Your task to perform on an android device: turn pop-ups on in chrome Image 0: 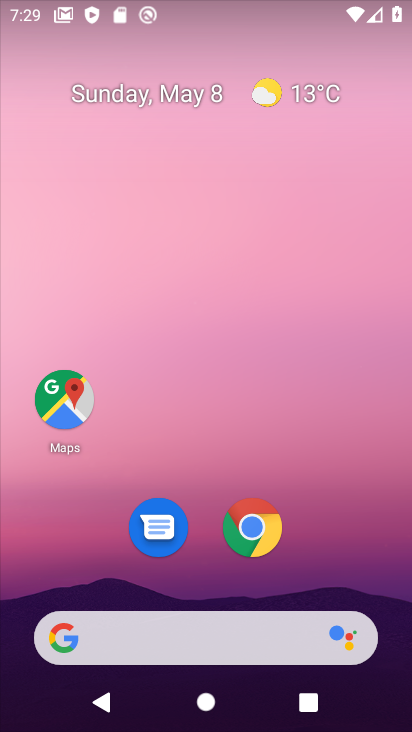
Step 0: drag from (310, 574) to (388, 1)
Your task to perform on an android device: turn pop-ups on in chrome Image 1: 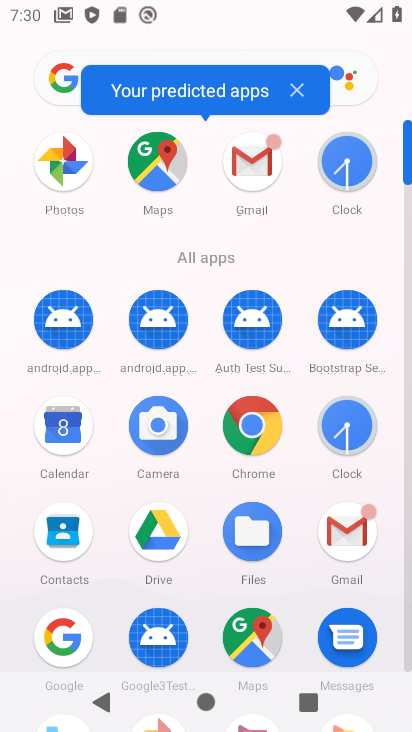
Step 1: click (271, 424)
Your task to perform on an android device: turn pop-ups on in chrome Image 2: 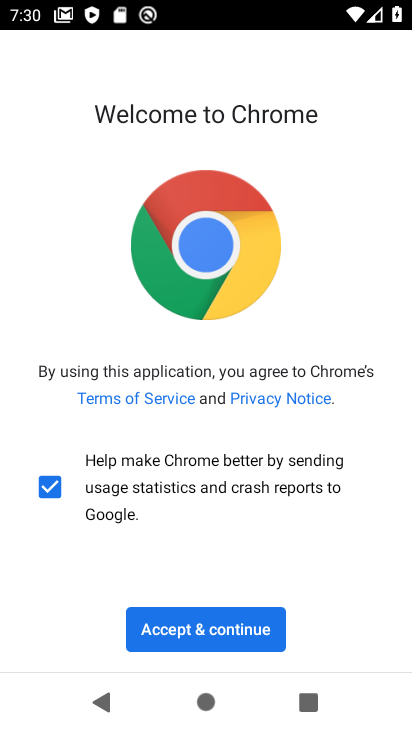
Step 2: click (272, 626)
Your task to perform on an android device: turn pop-ups on in chrome Image 3: 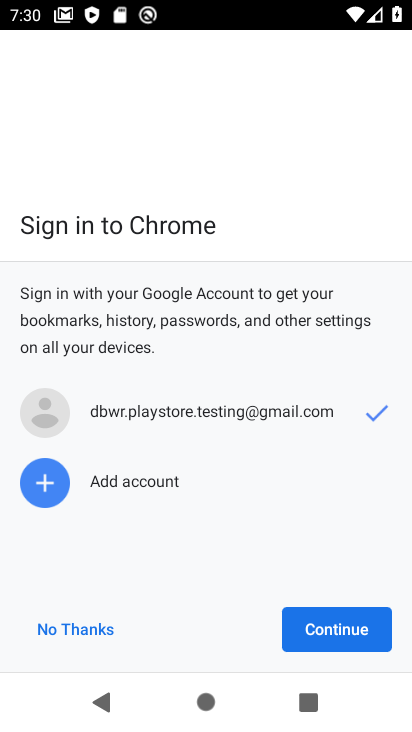
Step 3: click (86, 626)
Your task to perform on an android device: turn pop-ups on in chrome Image 4: 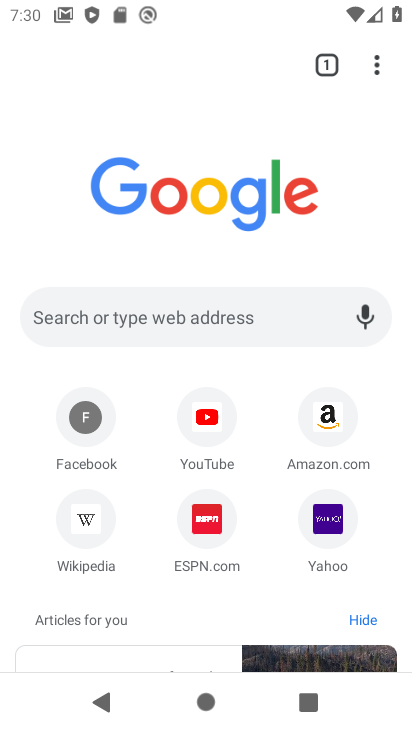
Step 4: drag from (375, 76) to (203, 531)
Your task to perform on an android device: turn pop-ups on in chrome Image 5: 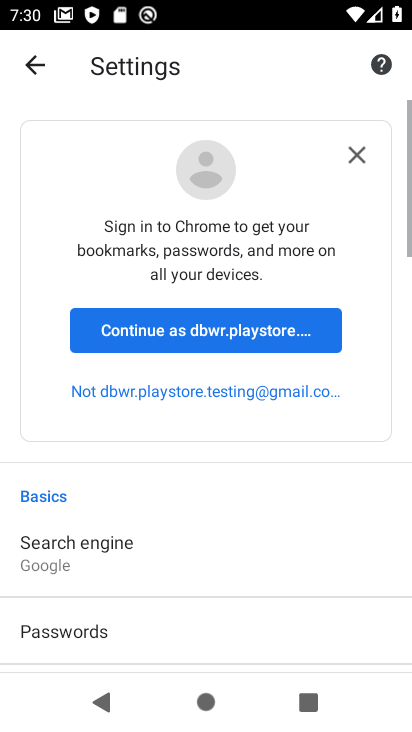
Step 5: drag from (203, 530) to (265, 173)
Your task to perform on an android device: turn pop-ups on in chrome Image 6: 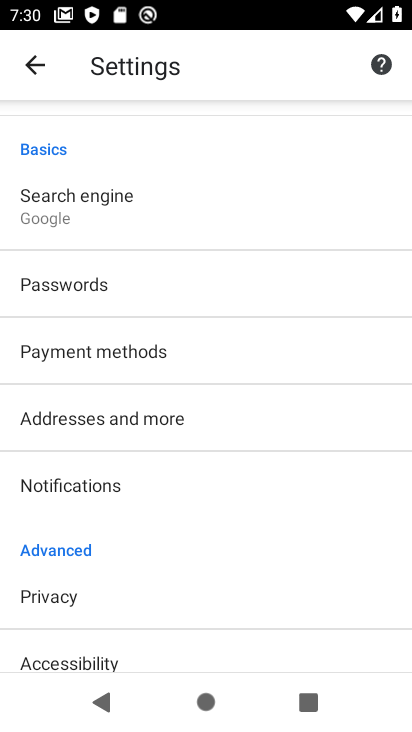
Step 6: drag from (210, 557) to (246, 121)
Your task to perform on an android device: turn pop-ups on in chrome Image 7: 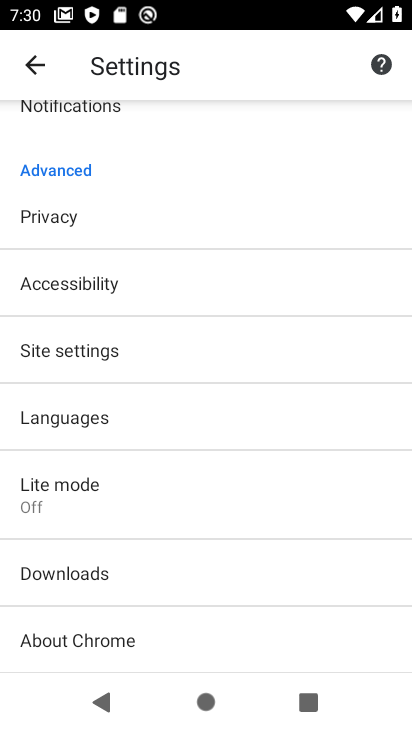
Step 7: click (92, 338)
Your task to perform on an android device: turn pop-ups on in chrome Image 8: 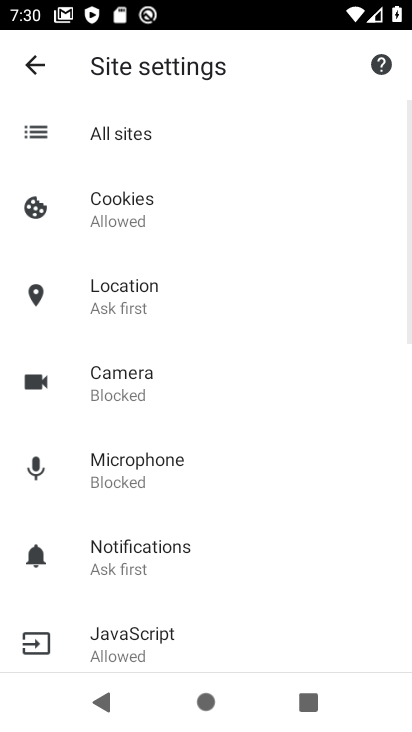
Step 8: drag from (157, 569) to (220, 219)
Your task to perform on an android device: turn pop-ups on in chrome Image 9: 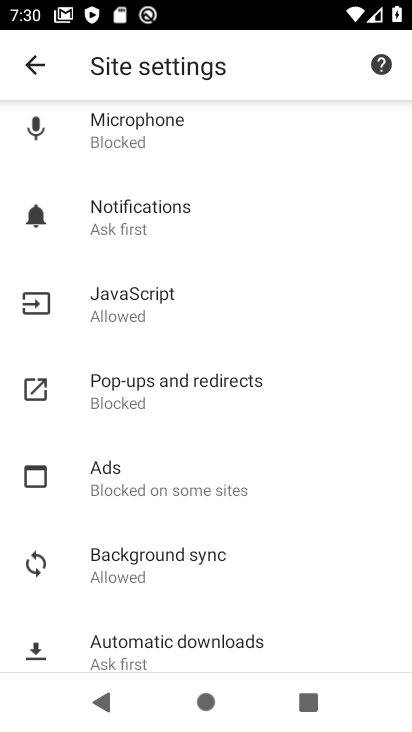
Step 9: click (167, 385)
Your task to perform on an android device: turn pop-ups on in chrome Image 10: 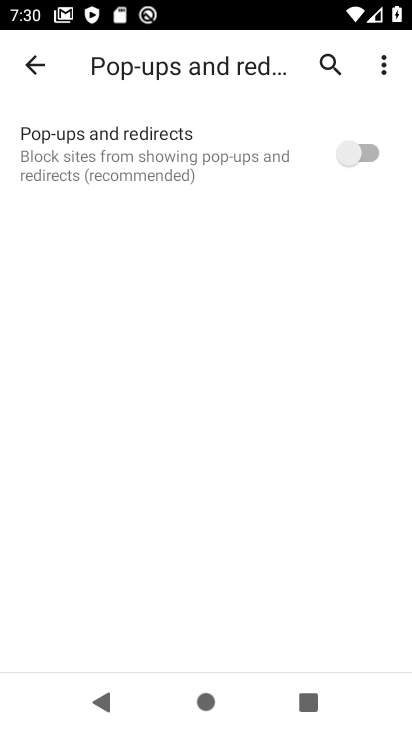
Step 10: click (368, 153)
Your task to perform on an android device: turn pop-ups on in chrome Image 11: 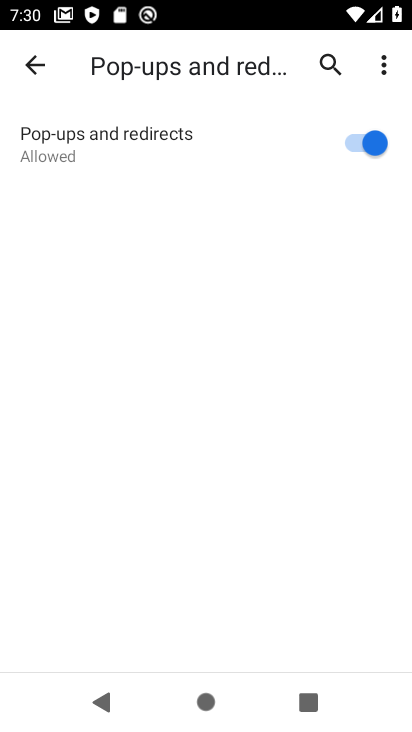
Step 11: task complete